Your task to perform on an android device: turn off location Image 0: 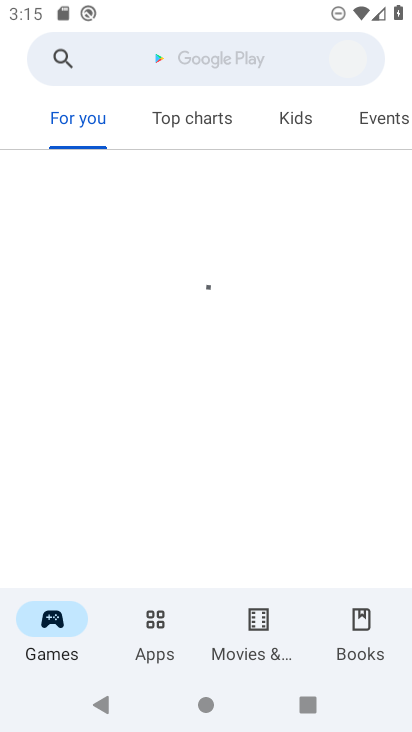
Step 0: press home button
Your task to perform on an android device: turn off location Image 1: 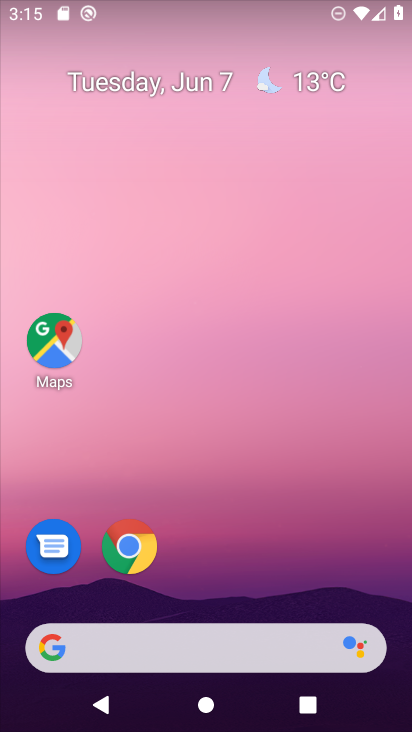
Step 1: drag from (23, 602) to (284, 146)
Your task to perform on an android device: turn off location Image 2: 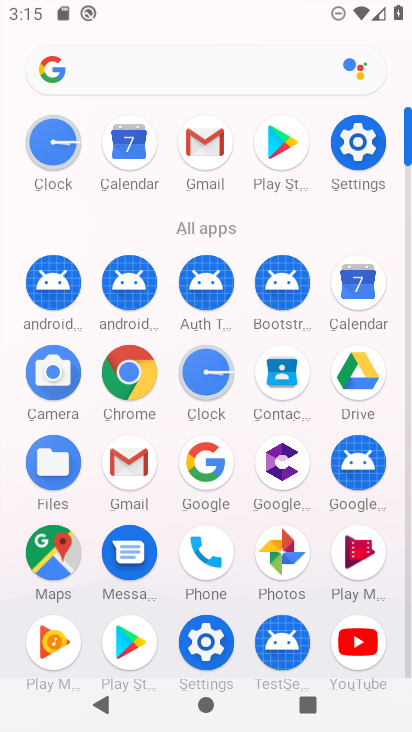
Step 2: click (344, 154)
Your task to perform on an android device: turn off location Image 3: 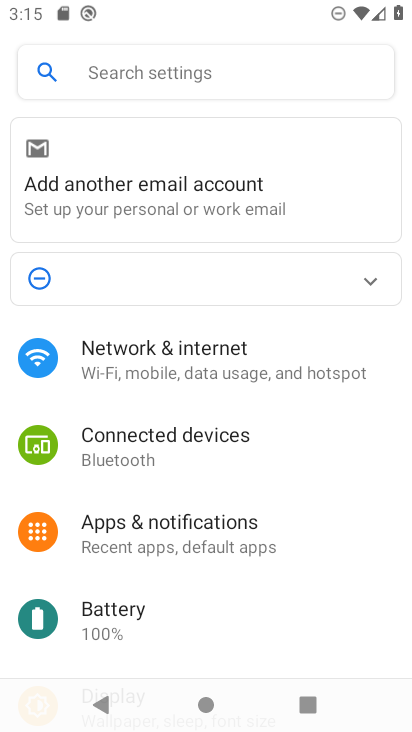
Step 3: drag from (17, 449) to (150, 224)
Your task to perform on an android device: turn off location Image 4: 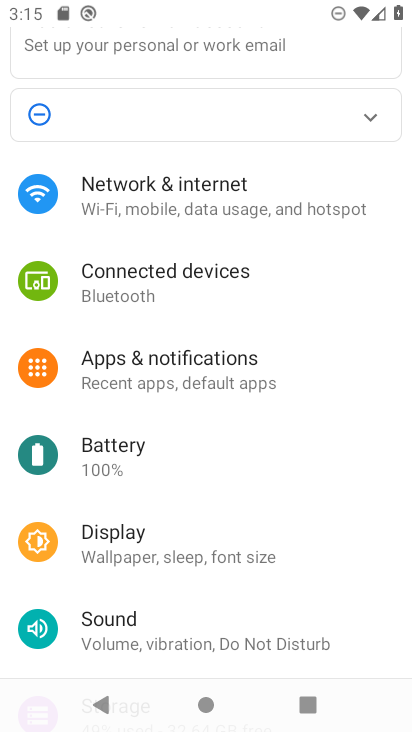
Step 4: drag from (12, 477) to (181, 210)
Your task to perform on an android device: turn off location Image 5: 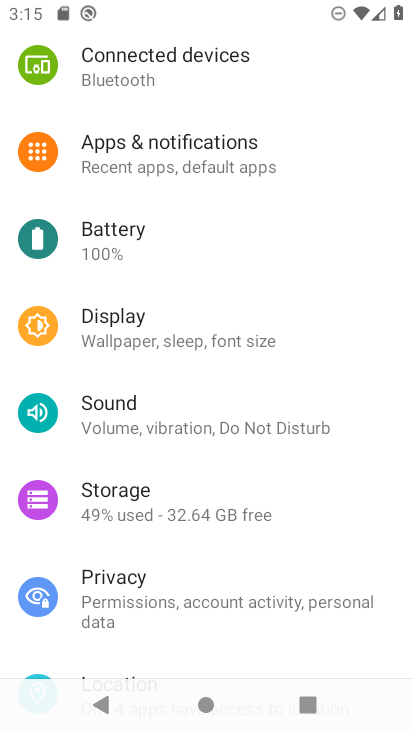
Step 5: drag from (8, 623) to (225, 199)
Your task to perform on an android device: turn off location Image 6: 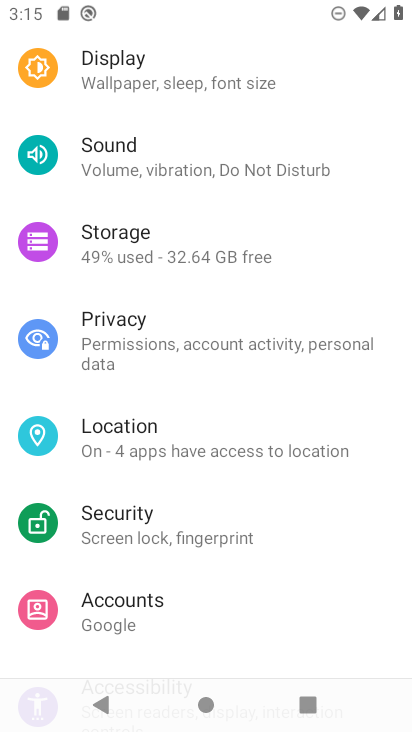
Step 6: click (119, 462)
Your task to perform on an android device: turn off location Image 7: 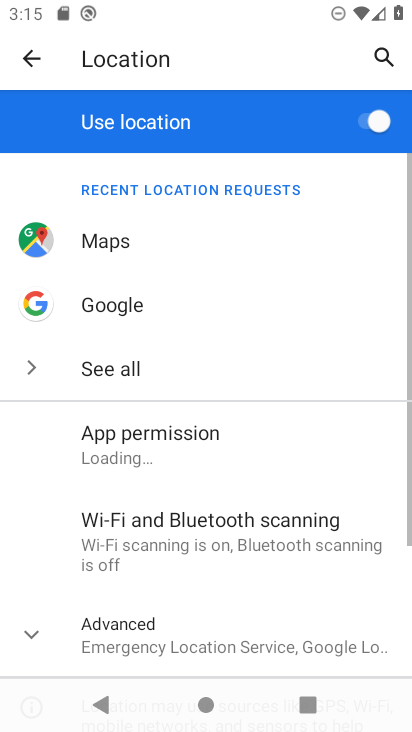
Step 7: click (391, 120)
Your task to perform on an android device: turn off location Image 8: 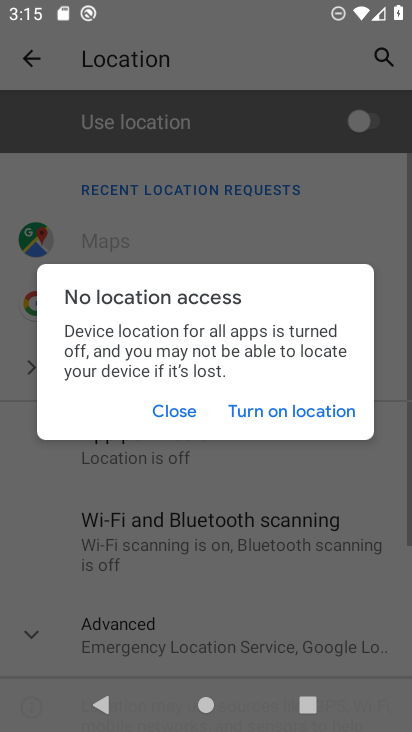
Step 8: task complete